Your task to perform on an android device: remove spam from my inbox in the gmail app Image 0: 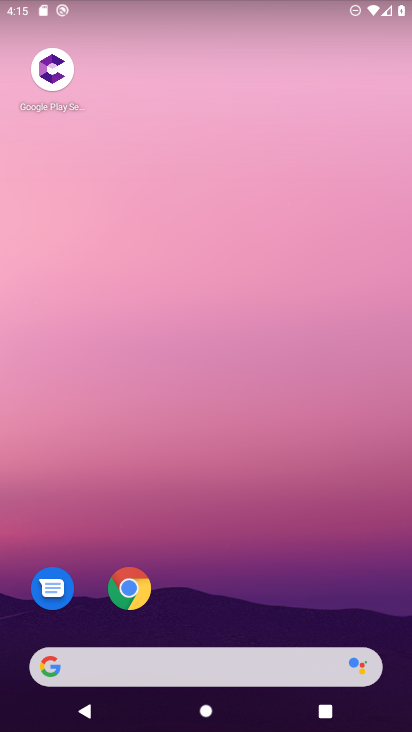
Step 0: drag from (208, 725) to (210, 86)
Your task to perform on an android device: remove spam from my inbox in the gmail app Image 1: 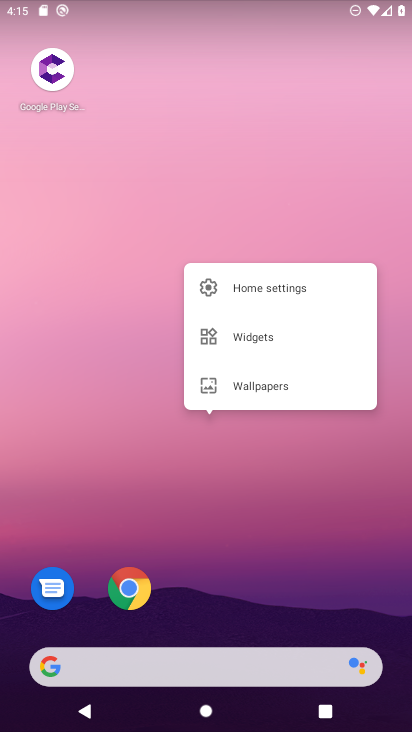
Step 1: click (194, 188)
Your task to perform on an android device: remove spam from my inbox in the gmail app Image 2: 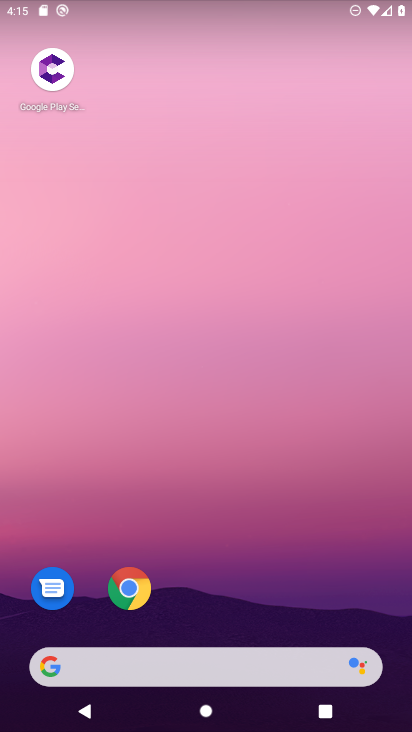
Step 2: drag from (210, 716) to (210, 82)
Your task to perform on an android device: remove spam from my inbox in the gmail app Image 3: 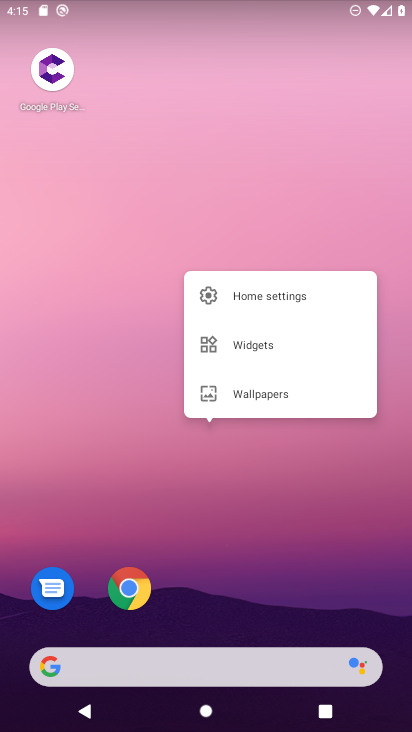
Step 3: click (218, 469)
Your task to perform on an android device: remove spam from my inbox in the gmail app Image 4: 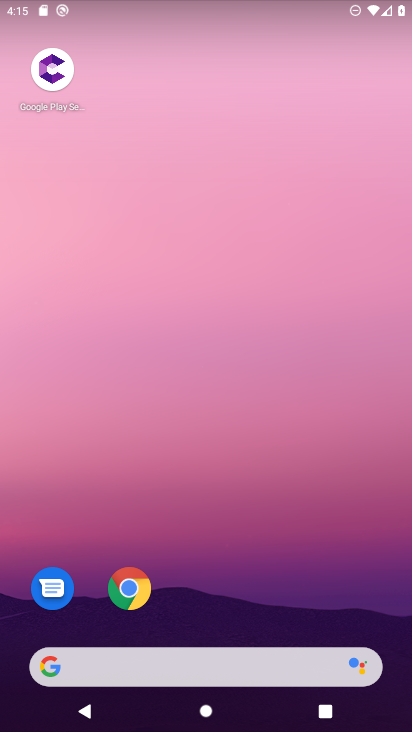
Step 4: drag from (221, 724) to (208, 96)
Your task to perform on an android device: remove spam from my inbox in the gmail app Image 5: 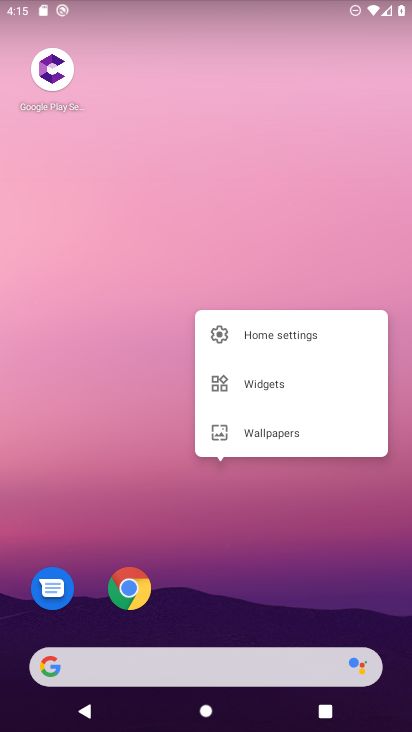
Step 5: click (204, 519)
Your task to perform on an android device: remove spam from my inbox in the gmail app Image 6: 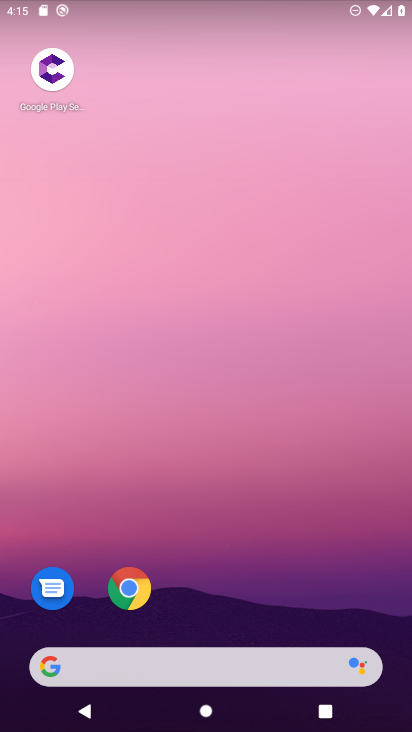
Step 6: drag from (206, 669) to (206, 142)
Your task to perform on an android device: remove spam from my inbox in the gmail app Image 7: 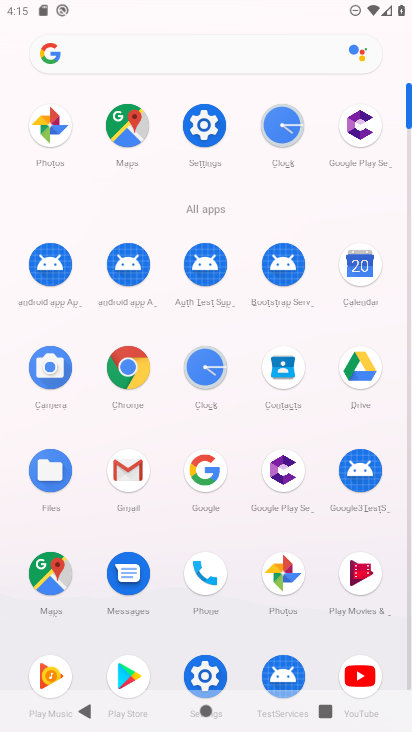
Step 7: click (127, 473)
Your task to perform on an android device: remove spam from my inbox in the gmail app Image 8: 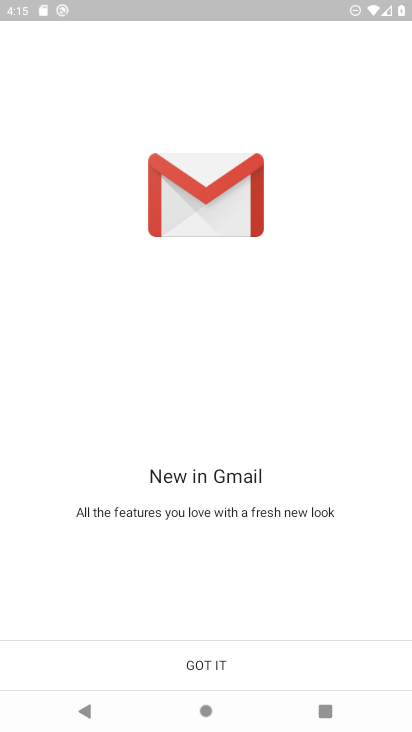
Step 8: click (215, 660)
Your task to perform on an android device: remove spam from my inbox in the gmail app Image 9: 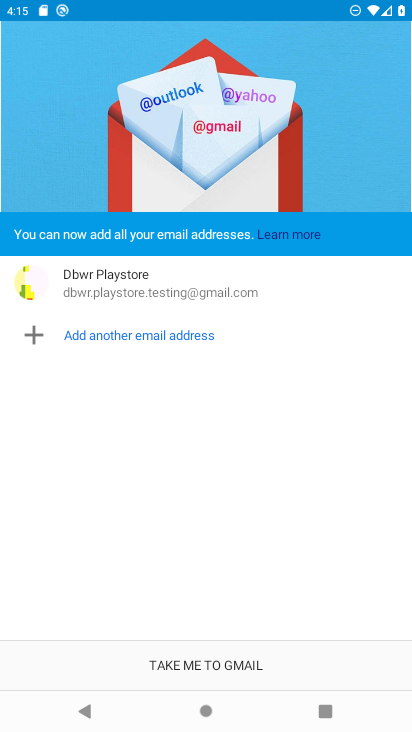
Step 9: click (212, 659)
Your task to perform on an android device: remove spam from my inbox in the gmail app Image 10: 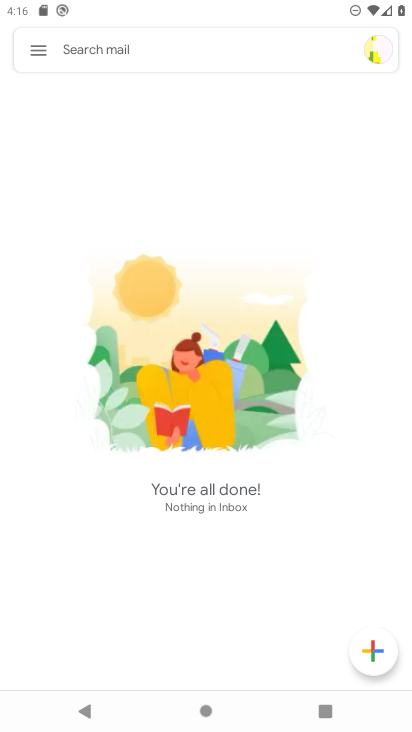
Step 10: task complete